Your task to perform on an android device: turn off picture-in-picture Image 0: 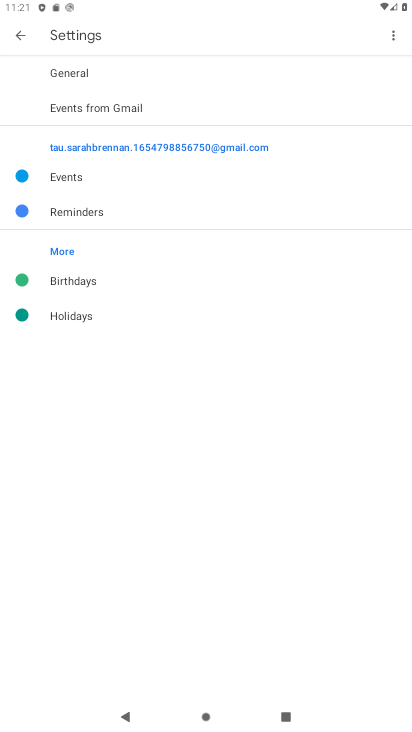
Step 0: press home button
Your task to perform on an android device: turn off picture-in-picture Image 1: 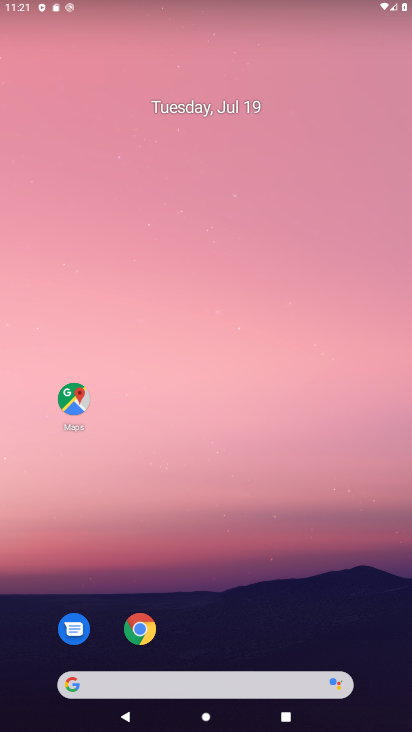
Step 1: drag from (343, 641) to (351, 103)
Your task to perform on an android device: turn off picture-in-picture Image 2: 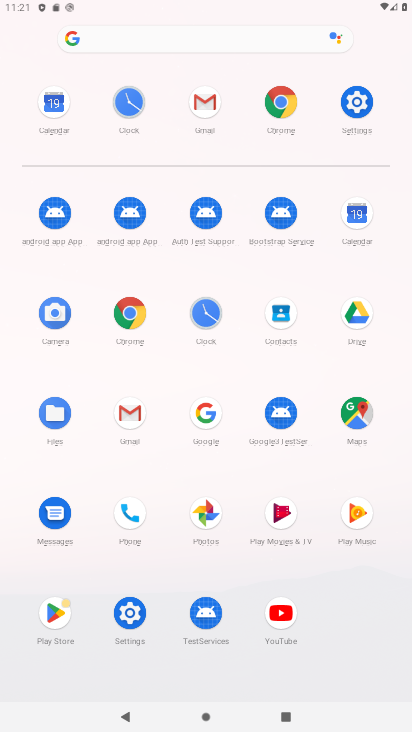
Step 2: click (282, 101)
Your task to perform on an android device: turn off picture-in-picture Image 3: 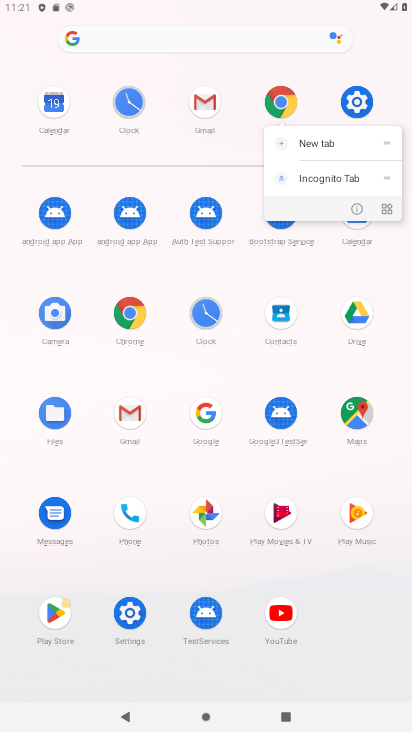
Step 3: click (350, 203)
Your task to perform on an android device: turn off picture-in-picture Image 4: 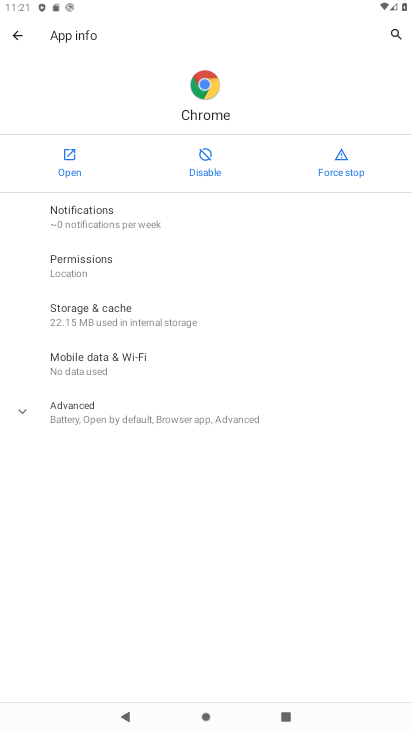
Step 4: click (104, 418)
Your task to perform on an android device: turn off picture-in-picture Image 5: 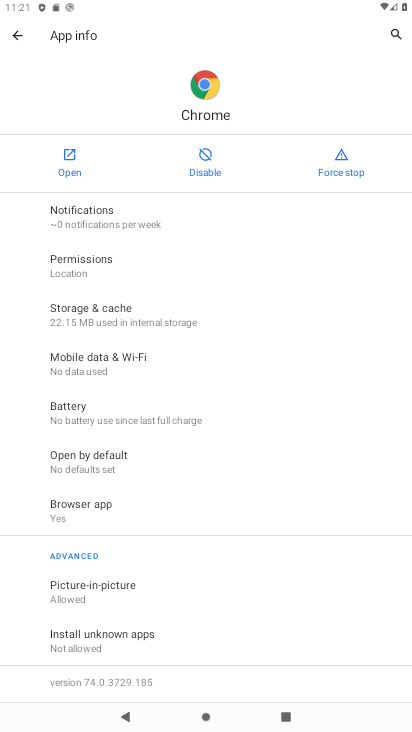
Step 5: click (103, 593)
Your task to perform on an android device: turn off picture-in-picture Image 6: 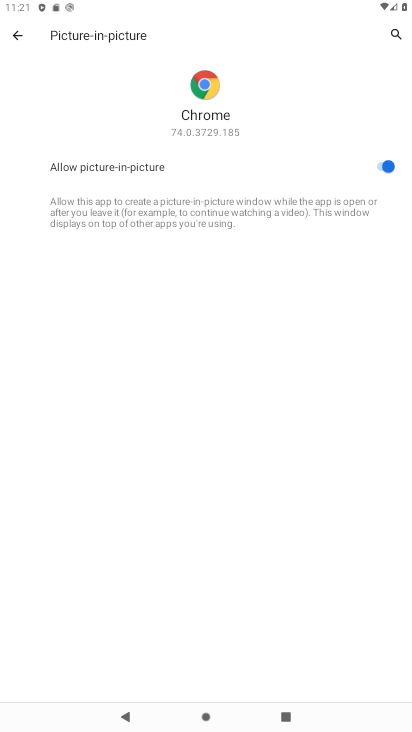
Step 6: click (399, 167)
Your task to perform on an android device: turn off picture-in-picture Image 7: 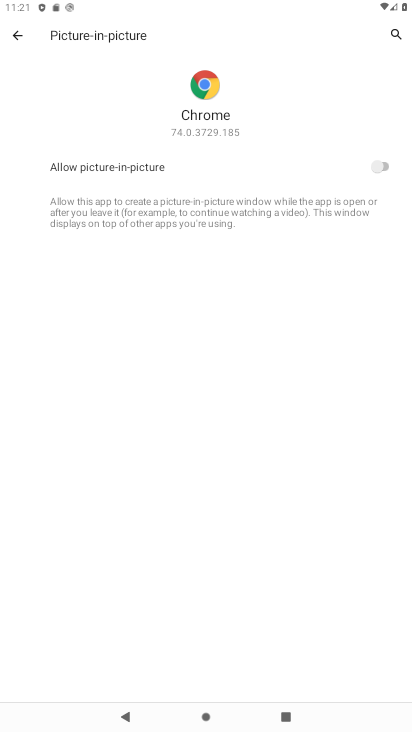
Step 7: task complete